Your task to perform on an android device: Do I have any events today? Image 0: 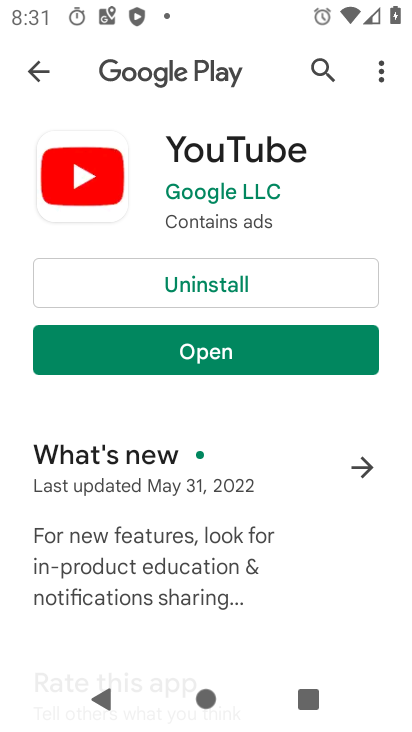
Step 0: press back button
Your task to perform on an android device: Do I have any events today? Image 1: 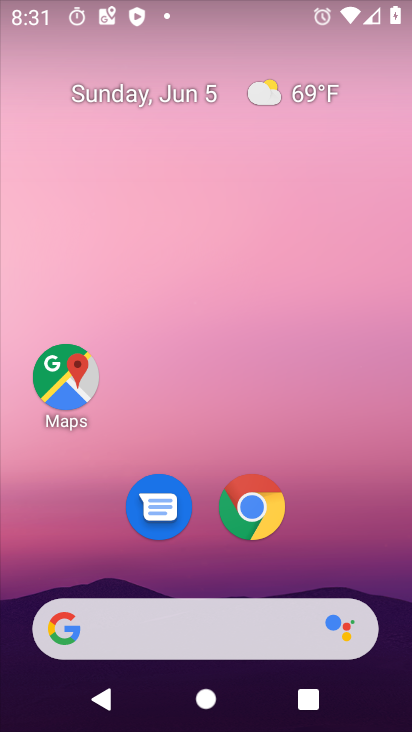
Step 1: drag from (394, 565) to (307, 5)
Your task to perform on an android device: Do I have any events today? Image 2: 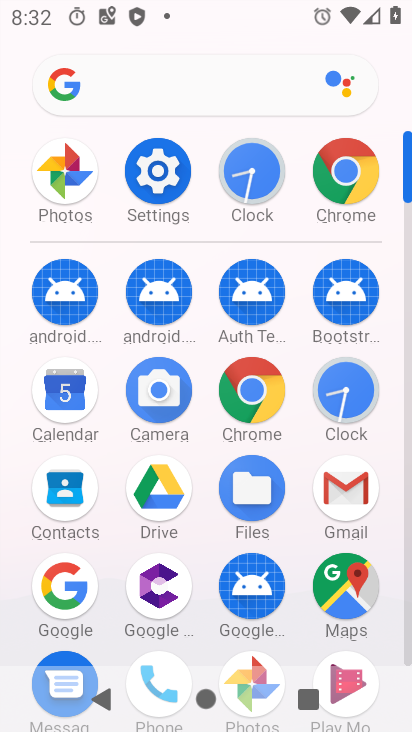
Step 2: click (63, 384)
Your task to perform on an android device: Do I have any events today? Image 3: 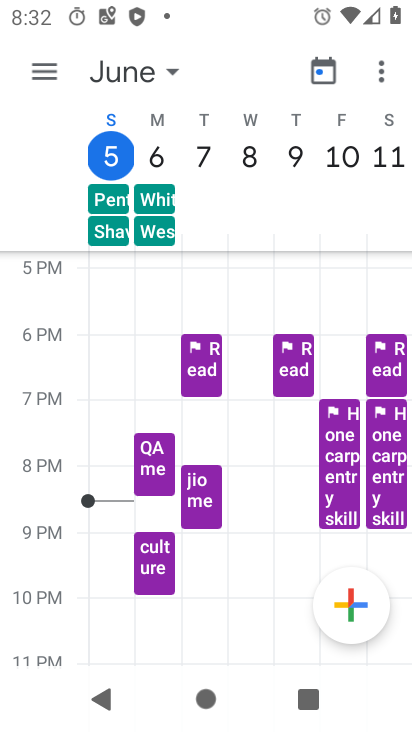
Step 3: click (107, 145)
Your task to perform on an android device: Do I have any events today? Image 4: 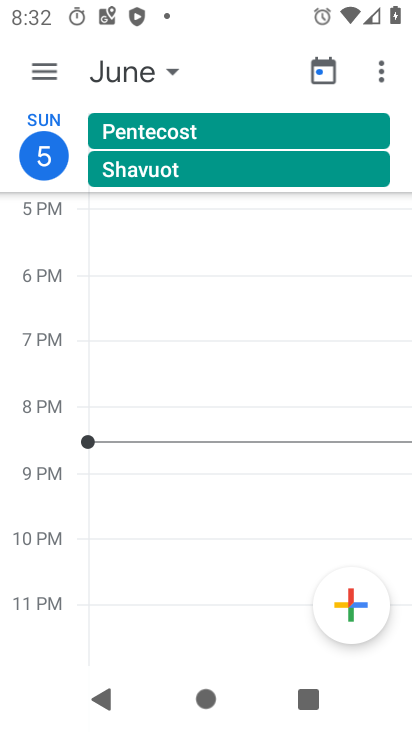
Step 4: task complete